Your task to perform on an android device: Show me recent news Image 0: 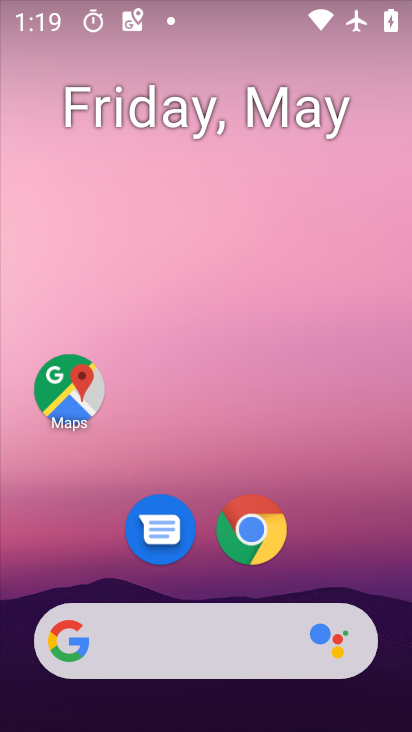
Step 0: drag from (266, 612) to (142, 45)
Your task to perform on an android device: Show me recent news Image 1: 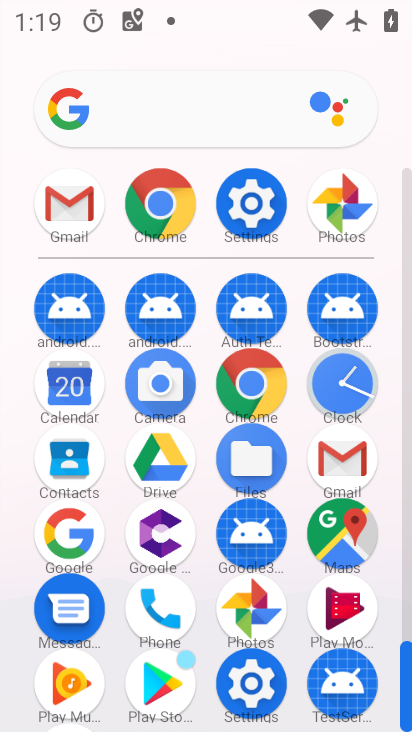
Step 1: click (71, 549)
Your task to perform on an android device: Show me recent news Image 2: 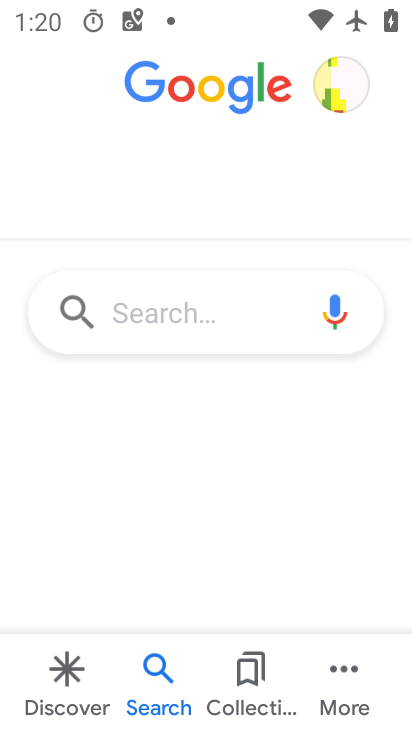
Step 2: click (204, 331)
Your task to perform on an android device: Show me recent news Image 3: 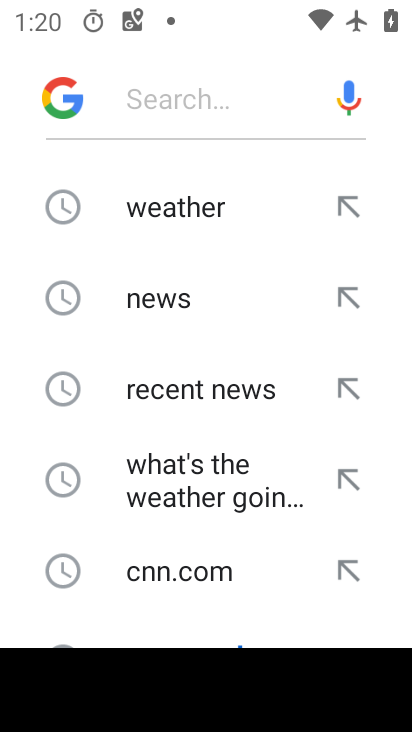
Step 3: click (223, 388)
Your task to perform on an android device: Show me recent news Image 4: 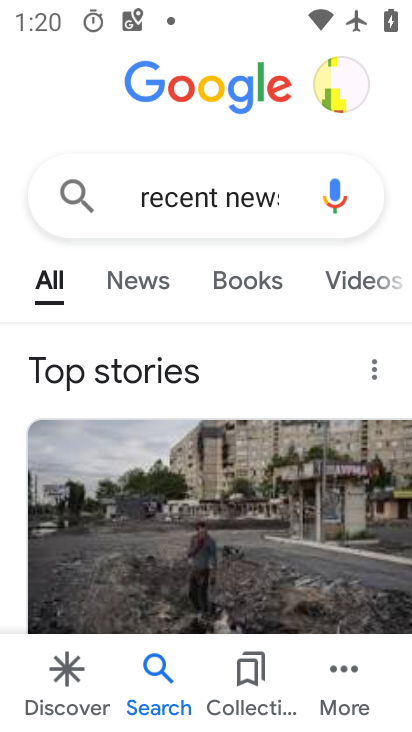
Step 4: click (156, 287)
Your task to perform on an android device: Show me recent news Image 5: 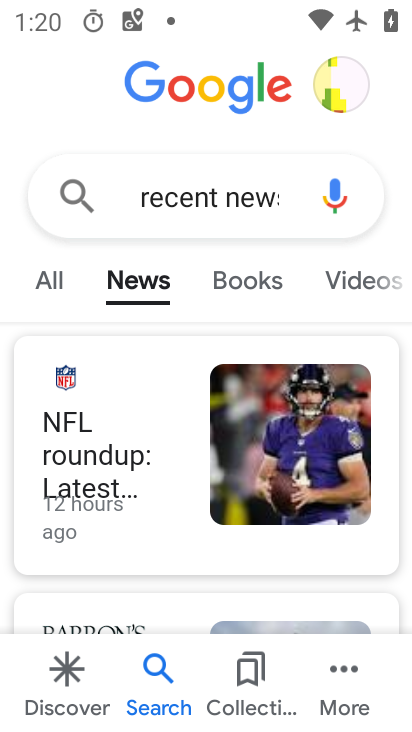
Step 5: task complete